Your task to perform on an android device: change the clock style Image 0: 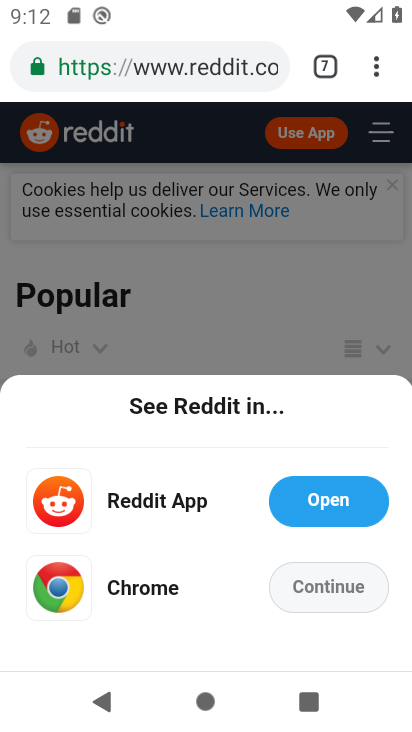
Step 0: press home button
Your task to perform on an android device: change the clock style Image 1: 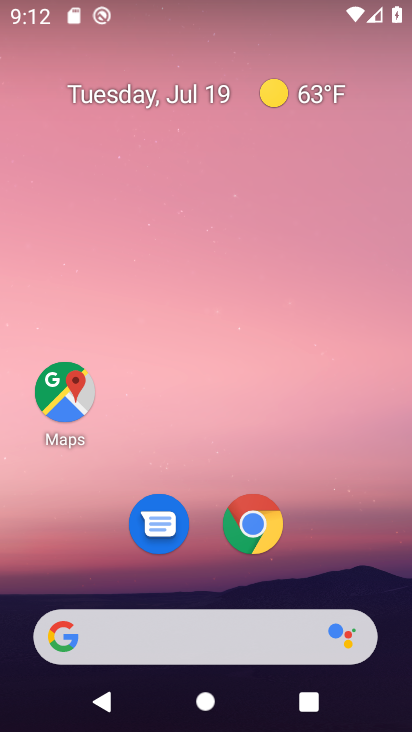
Step 1: drag from (184, 595) to (298, 65)
Your task to perform on an android device: change the clock style Image 2: 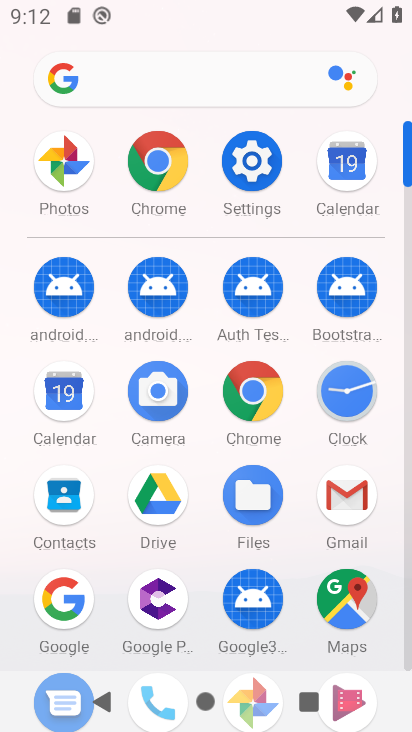
Step 2: click (346, 401)
Your task to perform on an android device: change the clock style Image 3: 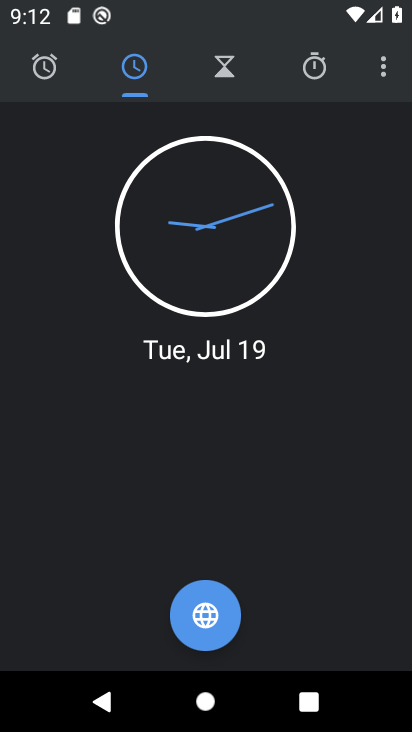
Step 3: click (388, 61)
Your task to perform on an android device: change the clock style Image 4: 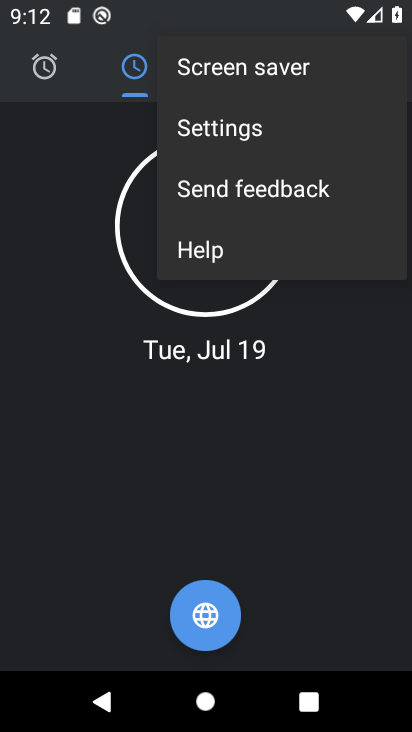
Step 4: click (219, 127)
Your task to perform on an android device: change the clock style Image 5: 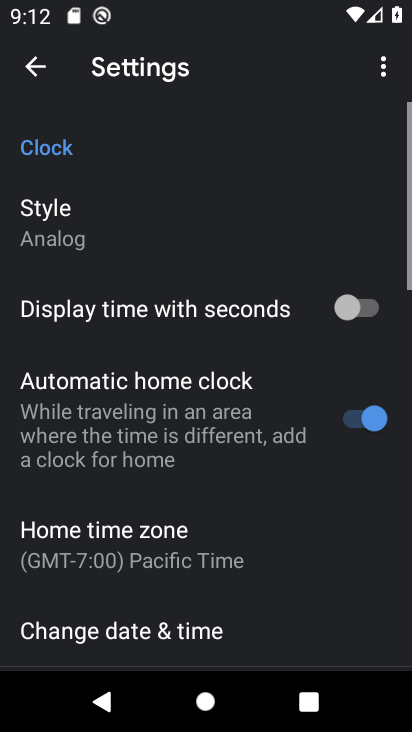
Step 5: click (63, 212)
Your task to perform on an android device: change the clock style Image 6: 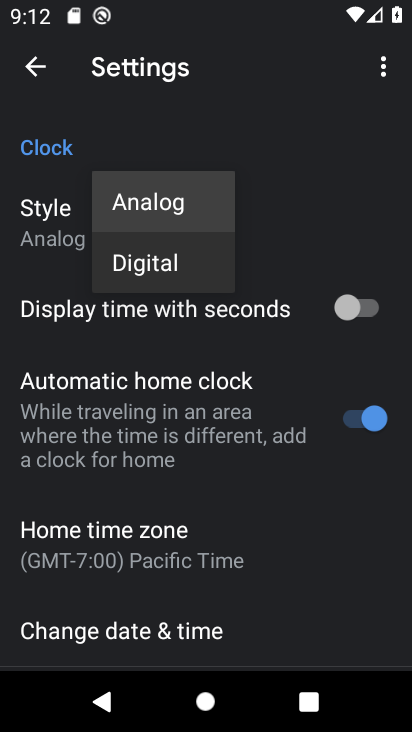
Step 6: click (154, 261)
Your task to perform on an android device: change the clock style Image 7: 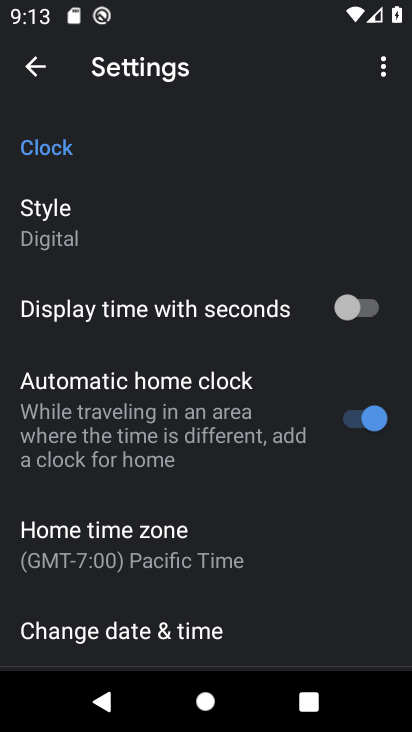
Step 7: task complete